Your task to perform on an android device: allow notifications from all sites in the chrome app Image 0: 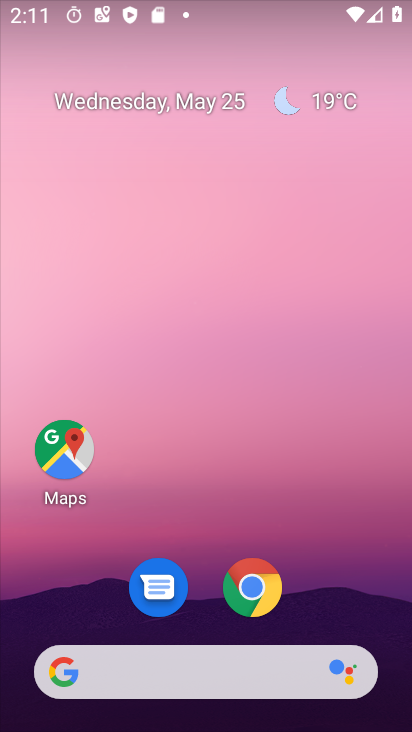
Step 0: drag from (201, 611) to (277, 84)
Your task to perform on an android device: allow notifications from all sites in the chrome app Image 1: 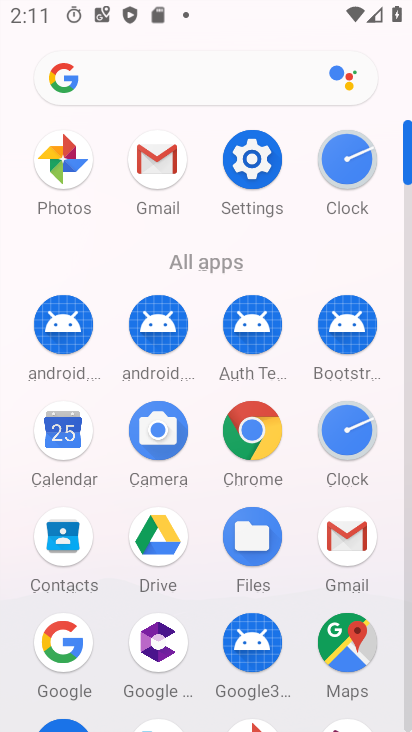
Step 1: click (212, 515)
Your task to perform on an android device: allow notifications from all sites in the chrome app Image 2: 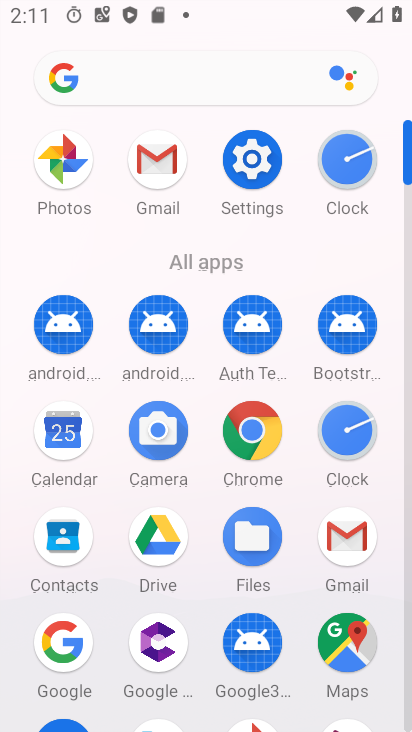
Step 2: click (251, 430)
Your task to perform on an android device: allow notifications from all sites in the chrome app Image 3: 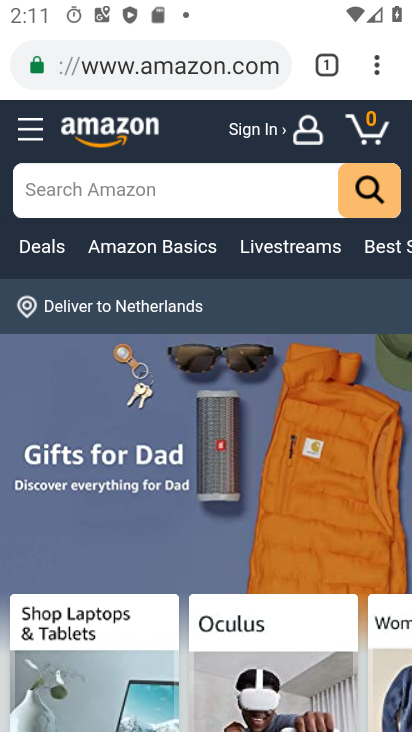
Step 3: click (367, 63)
Your task to perform on an android device: allow notifications from all sites in the chrome app Image 4: 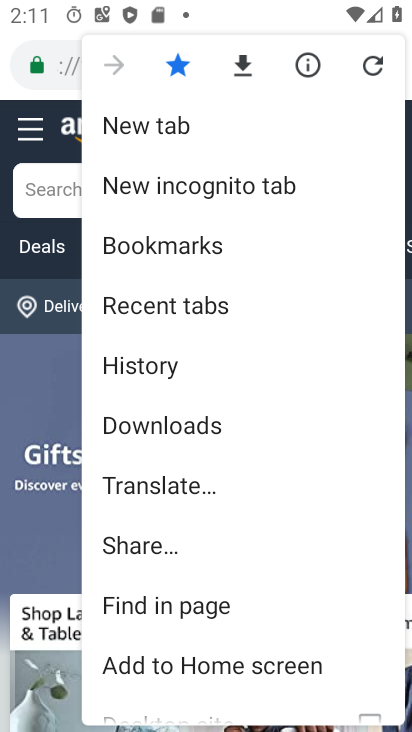
Step 4: drag from (271, 534) to (243, 102)
Your task to perform on an android device: allow notifications from all sites in the chrome app Image 5: 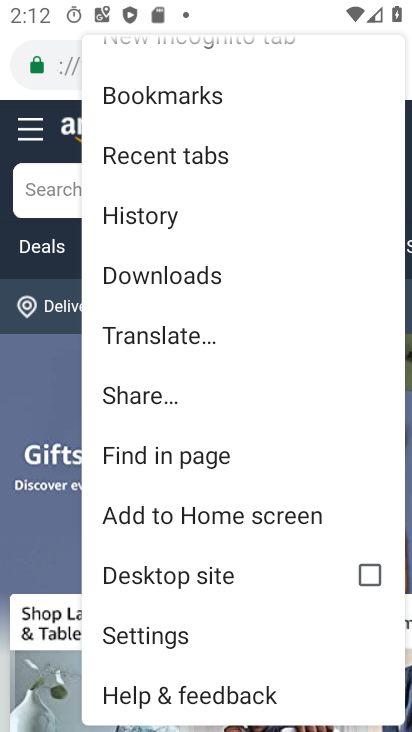
Step 5: click (188, 638)
Your task to perform on an android device: allow notifications from all sites in the chrome app Image 6: 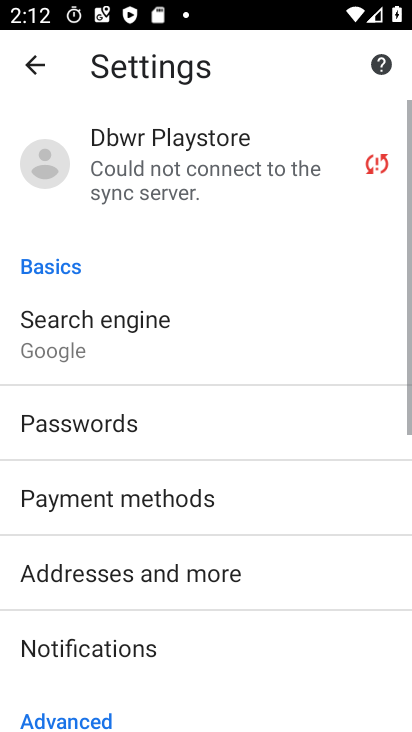
Step 6: drag from (225, 543) to (288, 98)
Your task to perform on an android device: allow notifications from all sites in the chrome app Image 7: 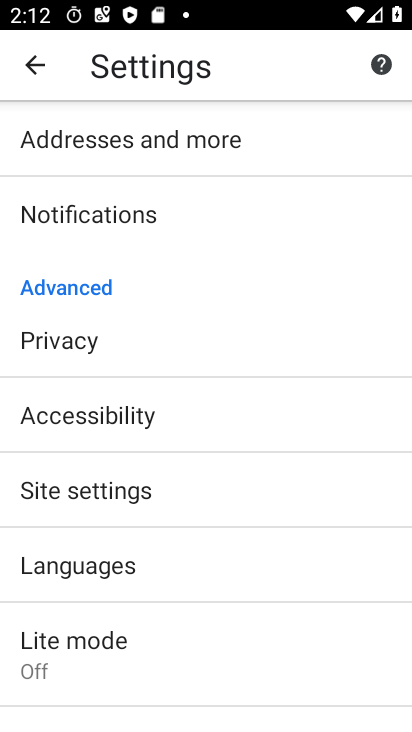
Step 7: drag from (217, 604) to (231, 485)
Your task to perform on an android device: allow notifications from all sites in the chrome app Image 8: 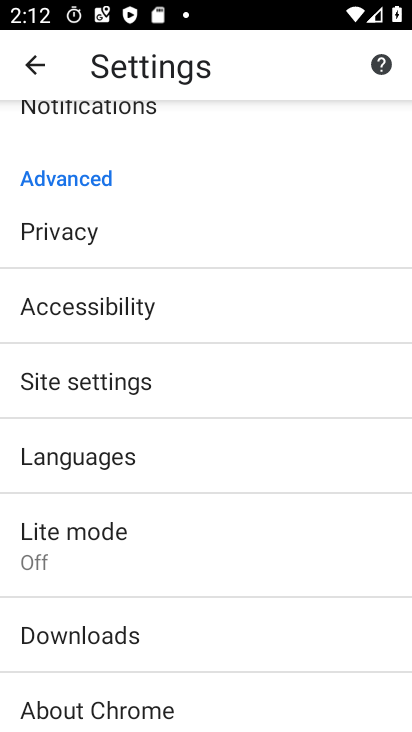
Step 8: click (172, 384)
Your task to perform on an android device: allow notifications from all sites in the chrome app Image 9: 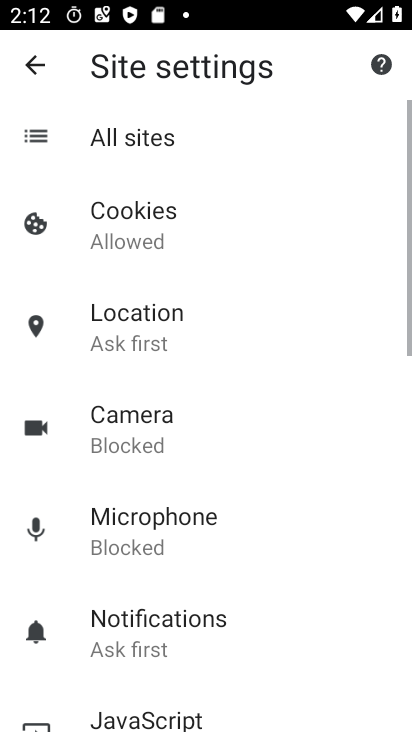
Step 9: drag from (259, 586) to (246, 327)
Your task to perform on an android device: allow notifications from all sites in the chrome app Image 10: 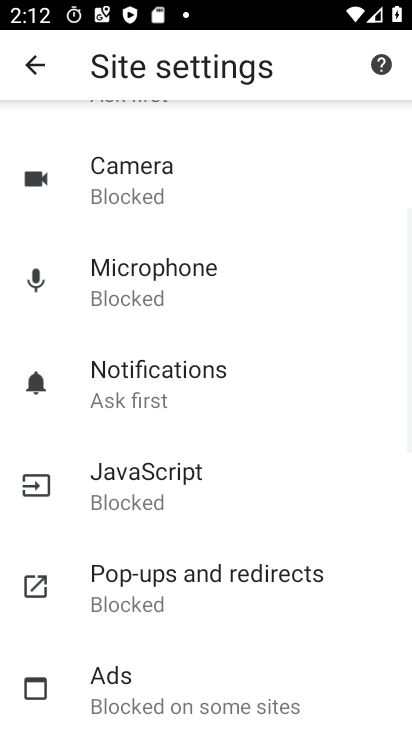
Step 10: click (154, 397)
Your task to perform on an android device: allow notifications from all sites in the chrome app Image 11: 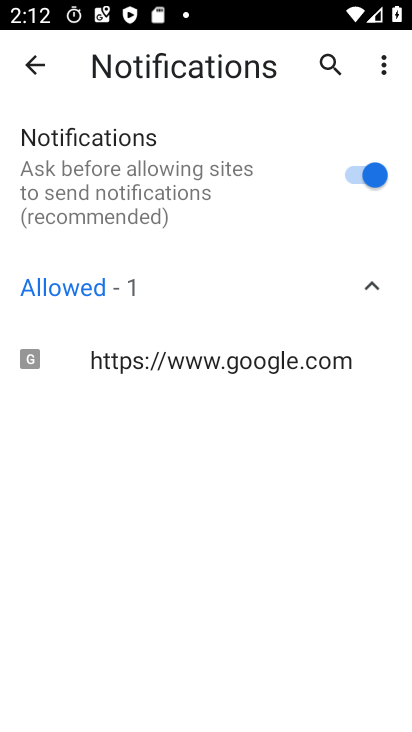
Step 11: task complete